Your task to perform on an android device: toggle location history Image 0: 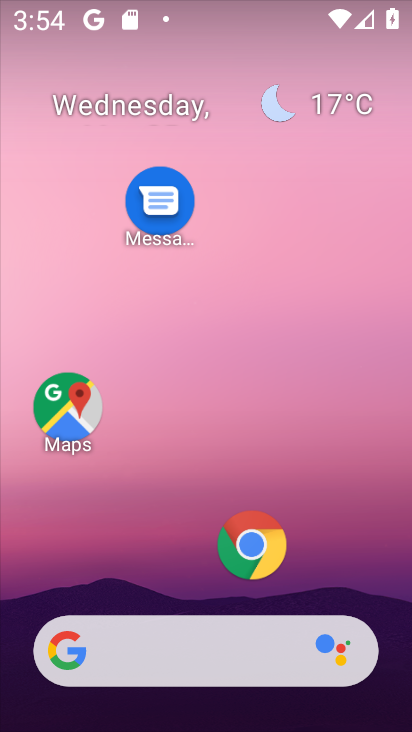
Step 0: drag from (343, 557) to (267, 77)
Your task to perform on an android device: toggle location history Image 1: 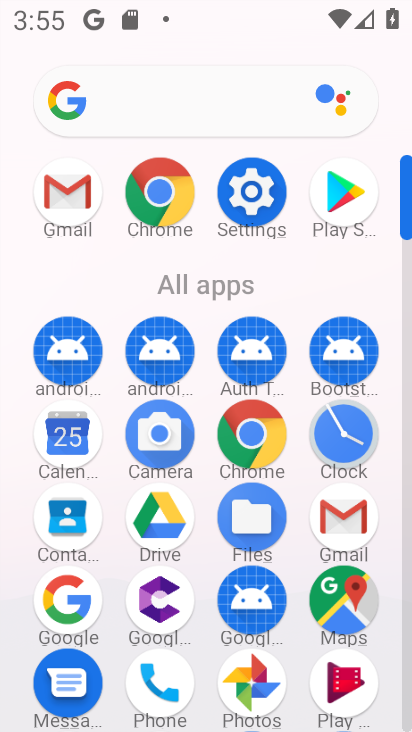
Step 1: click (263, 206)
Your task to perform on an android device: toggle location history Image 2: 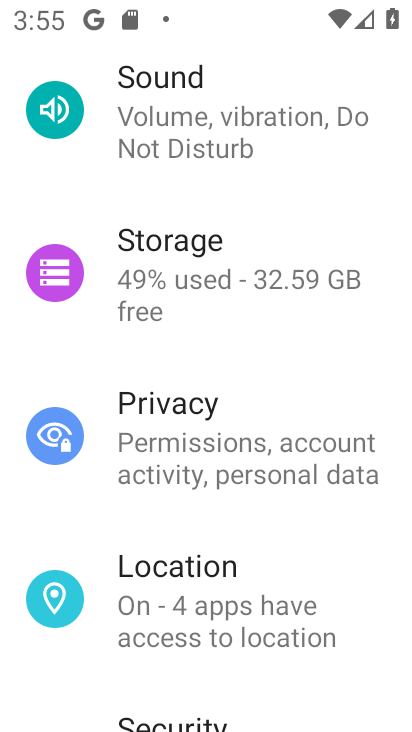
Step 2: click (201, 572)
Your task to perform on an android device: toggle location history Image 3: 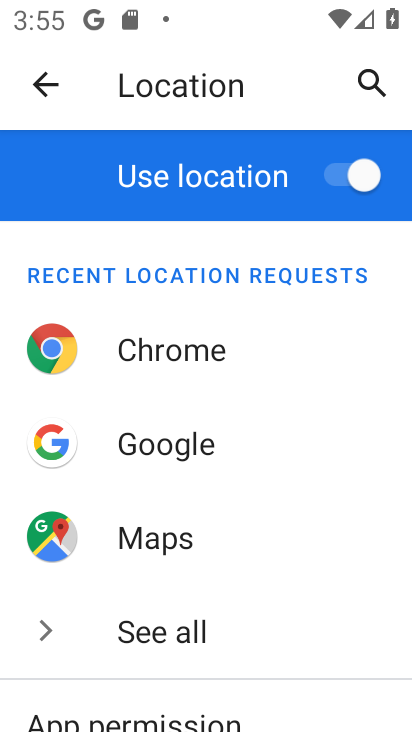
Step 3: drag from (278, 675) to (262, 69)
Your task to perform on an android device: toggle location history Image 4: 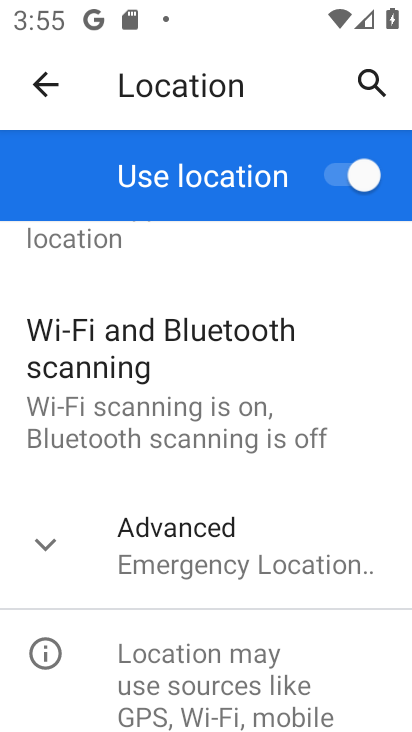
Step 4: click (274, 548)
Your task to perform on an android device: toggle location history Image 5: 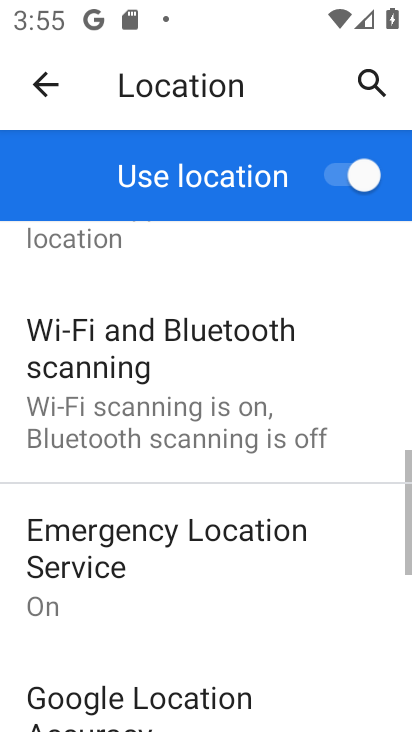
Step 5: drag from (273, 563) to (273, 80)
Your task to perform on an android device: toggle location history Image 6: 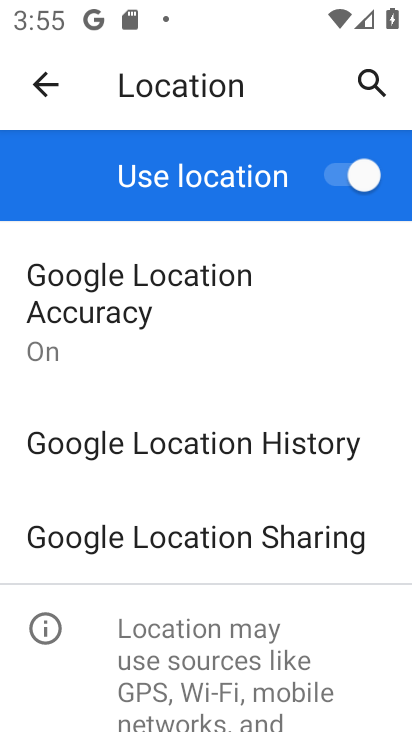
Step 6: click (282, 442)
Your task to perform on an android device: toggle location history Image 7: 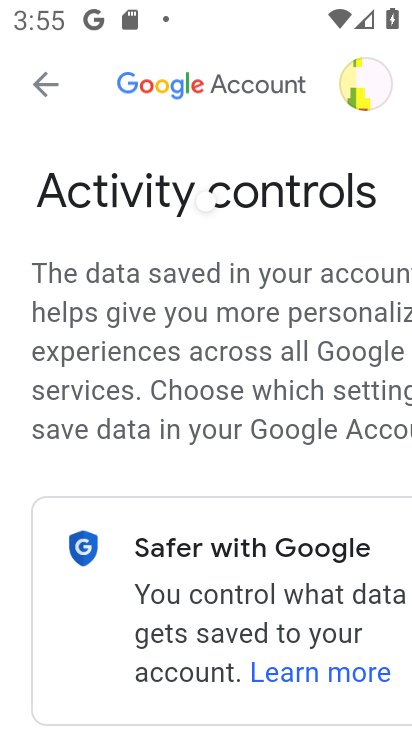
Step 7: drag from (254, 563) to (241, 150)
Your task to perform on an android device: toggle location history Image 8: 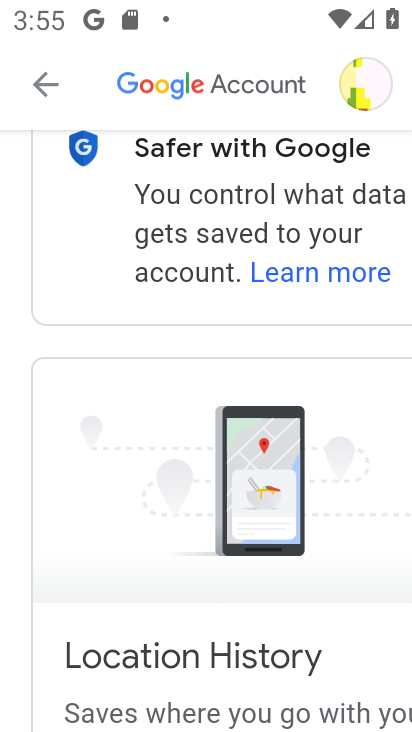
Step 8: drag from (210, 598) to (234, 150)
Your task to perform on an android device: toggle location history Image 9: 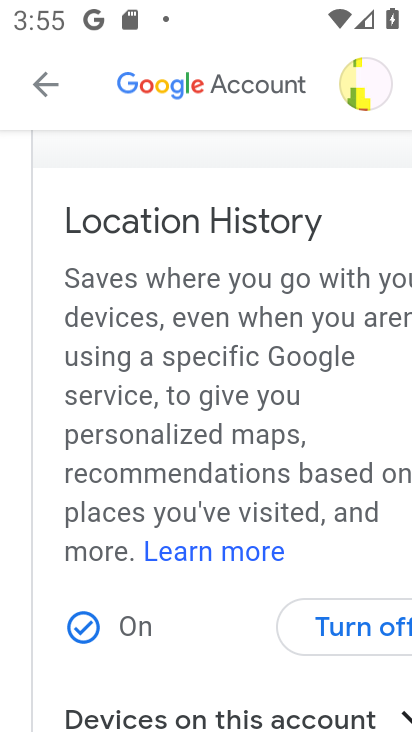
Step 9: click (347, 625)
Your task to perform on an android device: toggle location history Image 10: 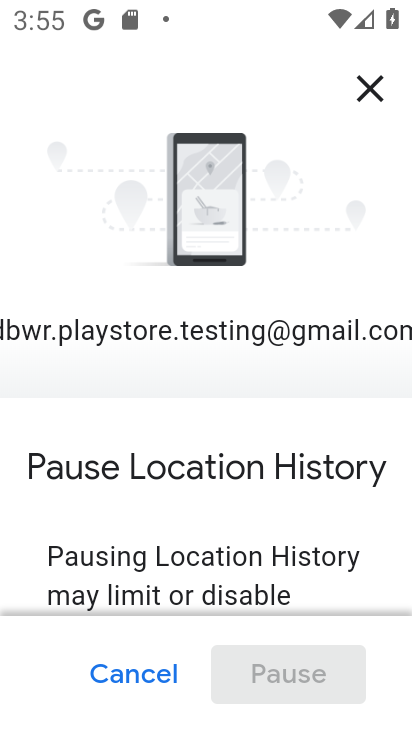
Step 10: task complete